Your task to perform on an android device: turn off notifications in google photos Image 0: 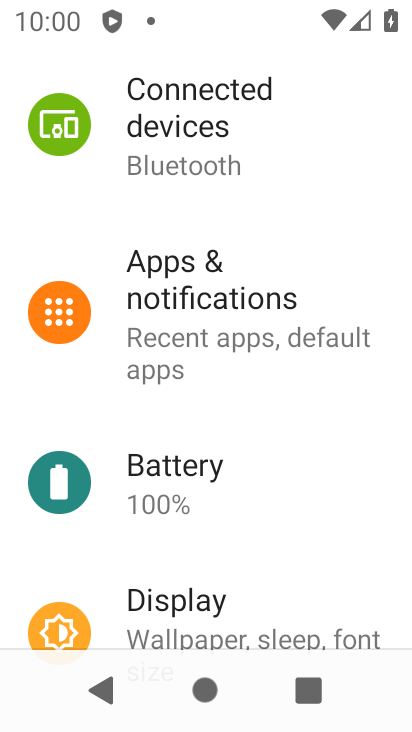
Step 0: press home button
Your task to perform on an android device: turn off notifications in google photos Image 1: 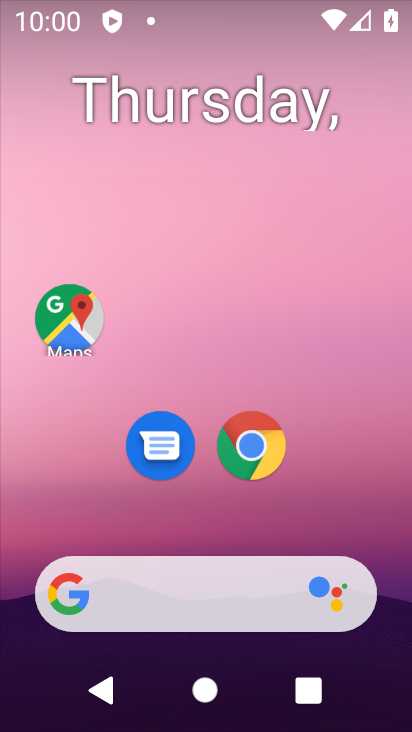
Step 1: drag from (217, 507) to (236, 55)
Your task to perform on an android device: turn off notifications in google photos Image 2: 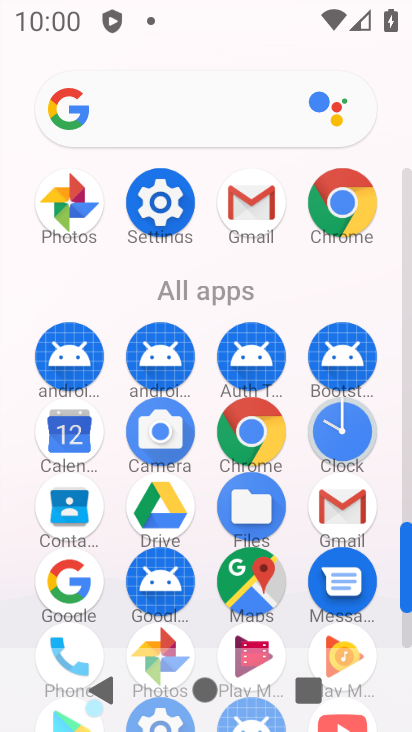
Step 2: drag from (217, 552) to (218, 226)
Your task to perform on an android device: turn off notifications in google photos Image 3: 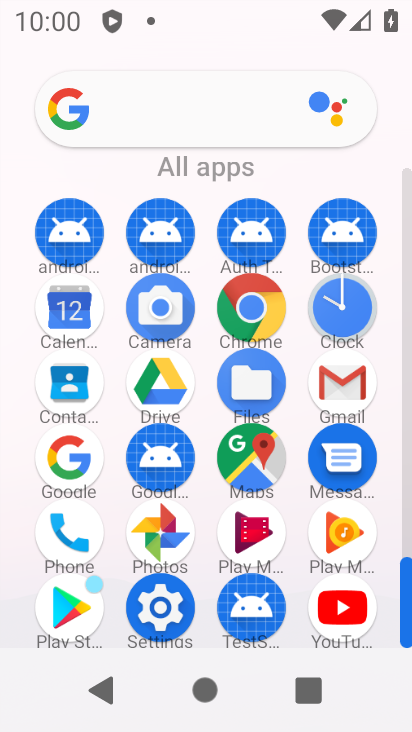
Step 3: click (170, 536)
Your task to perform on an android device: turn off notifications in google photos Image 4: 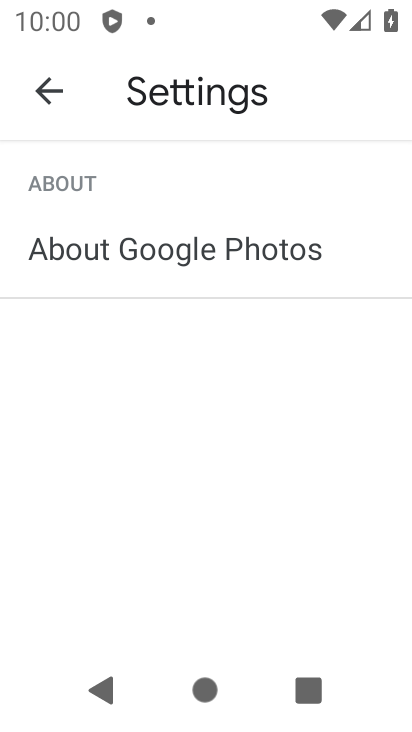
Step 4: click (72, 125)
Your task to perform on an android device: turn off notifications in google photos Image 5: 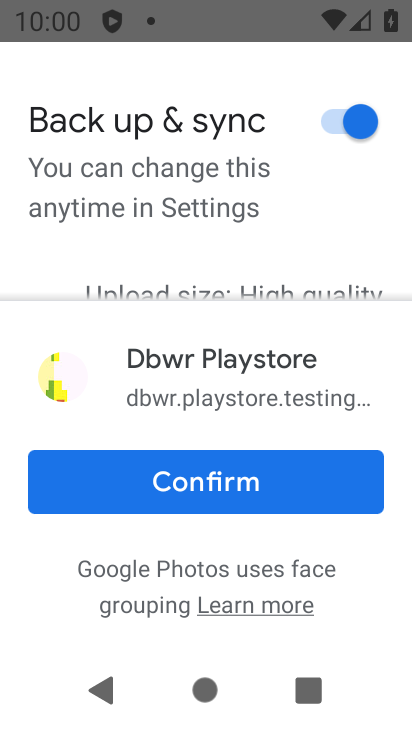
Step 5: click (104, 490)
Your task to perform on an android device: turn off notifications in google photos Image 6: 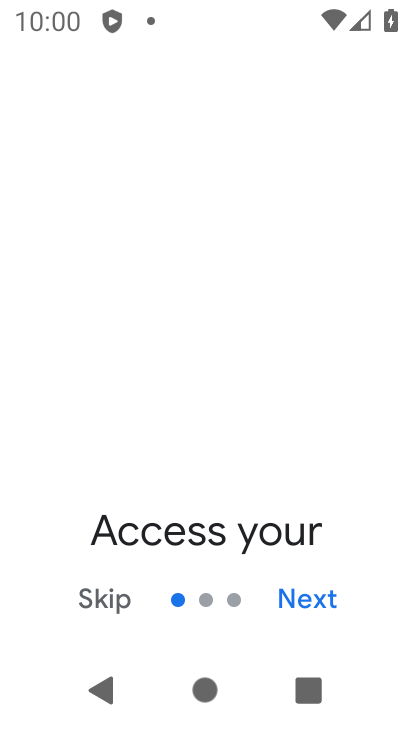
Step 6: click (122, 599)
Your task to perform on an android device: turn off notifications in google photos Image 7: 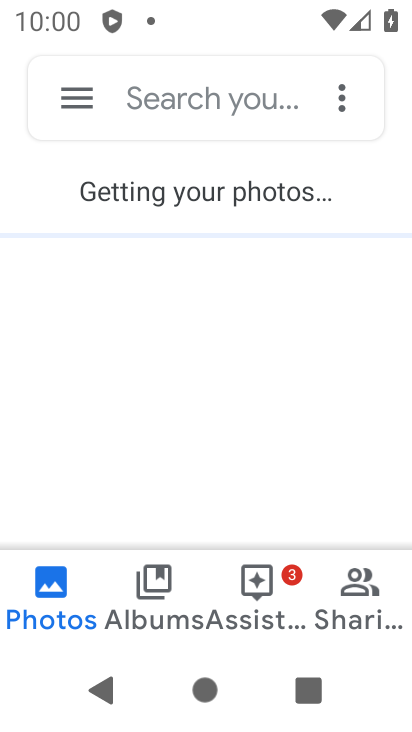
Step 7: click (70, 107)
Your task to perform on an android device: turn off notifications in google photos Image 8: 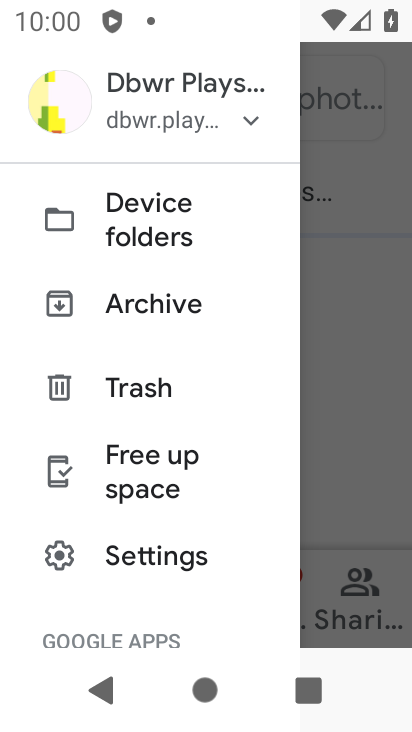
Step 8: drag from (148, 520) to (172, 320)
Your task to perform on an android device: turn off notifications in google photos Image 9: 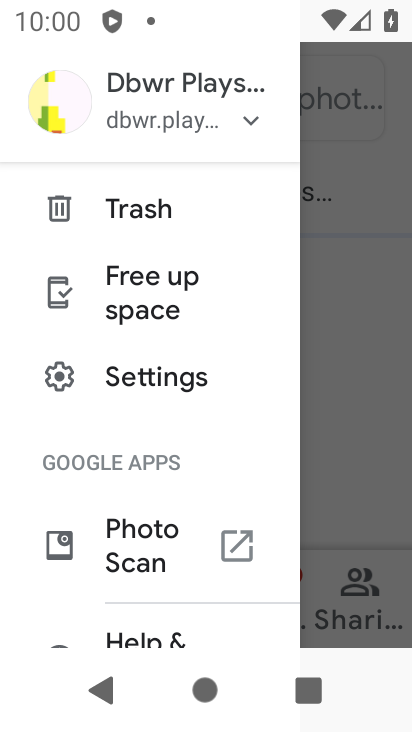
Step 9: click (152, 408)
Your task to perform on an android device: turn off notifications in google photos Image 10: 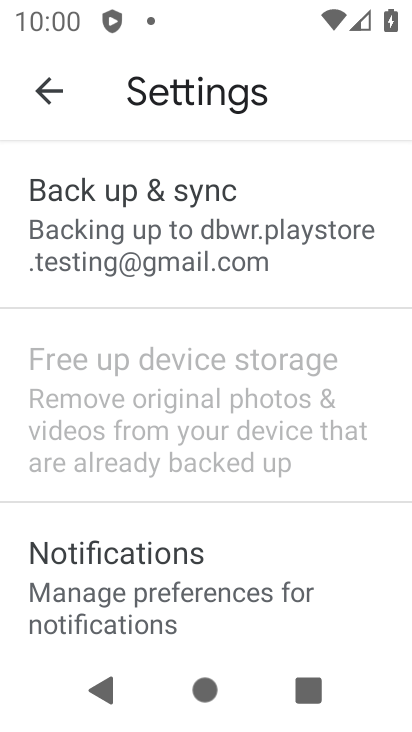
Step 10: click (120, 561)
Your task to perform on an android device: turn off notifications in google photos Image 11: 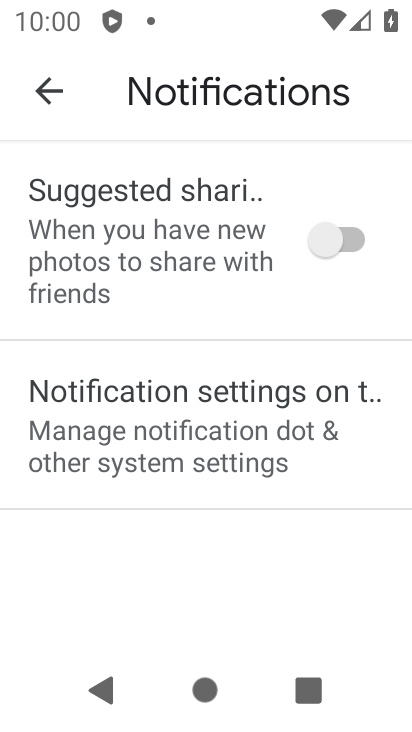
Step 11: click (208, 401)
Your task to perform on an android device: turn off notifications in google photos Image 12: 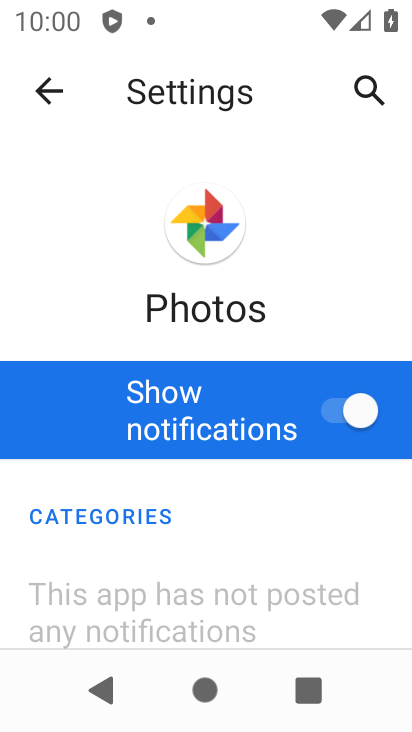
Step 12: click (316, 425)
Your task to perform on an android device: turn off notifications in google photos Image 13: 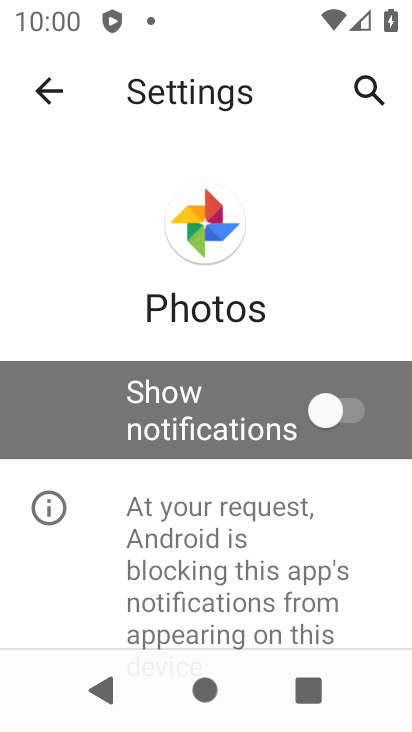
Step 13: task complete